Your task to perform on an android device: What's the weather going to be this weekend? Image 0: 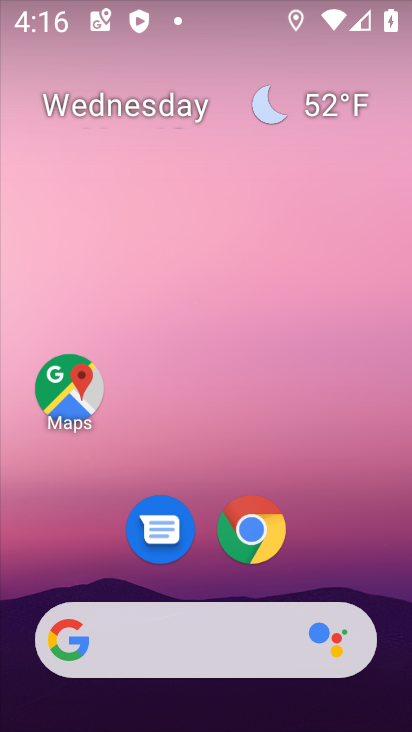
Step 0: drag from (341, 546) to (251, 52)
Your task to perform on an android device: What's the weather going to be this weekend? Image 1: 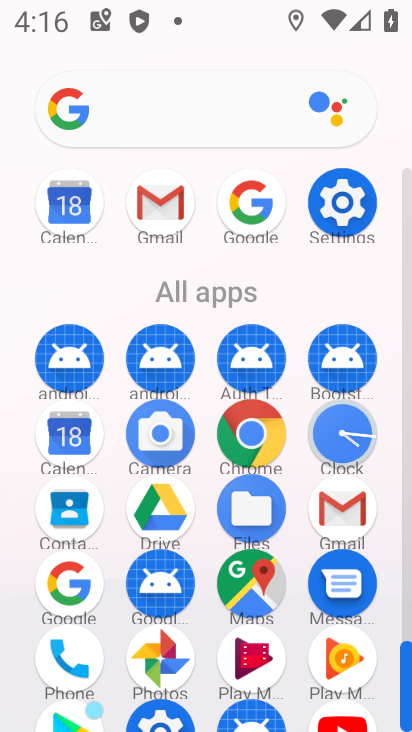
Step 1: click (247, 203)
Your task to perform on an android device: What's the weather going to be this weekend? Image 2: 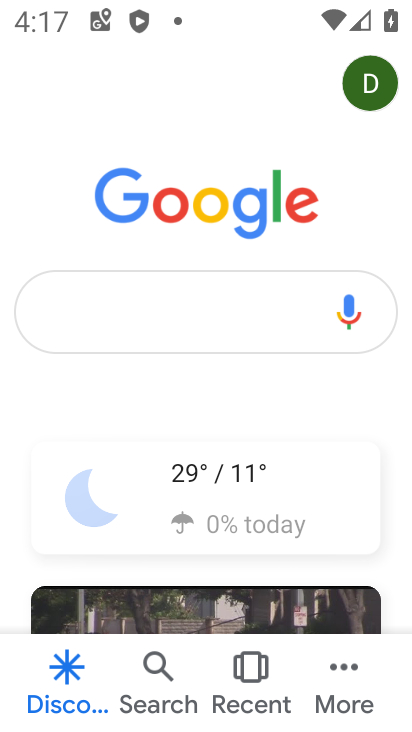
Step 2: type "What's the weather going to be this weekend?"
Your task to perform on an android device: What's the weather going to be this weekend? Image 3: 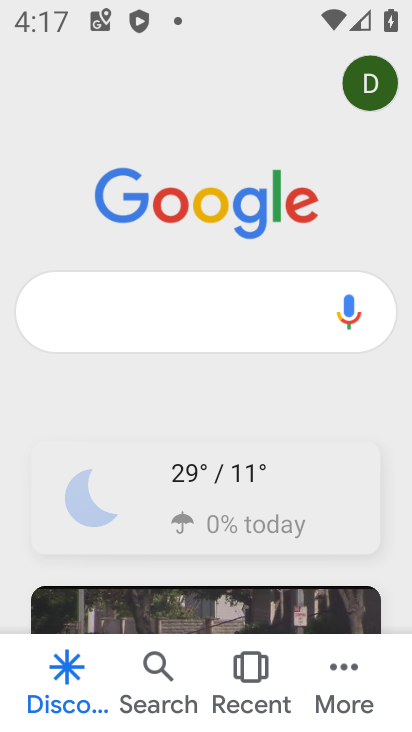
Step 3: type ""
Your task to perform on an android device: What's the weather going to be this weekend? Image 4: 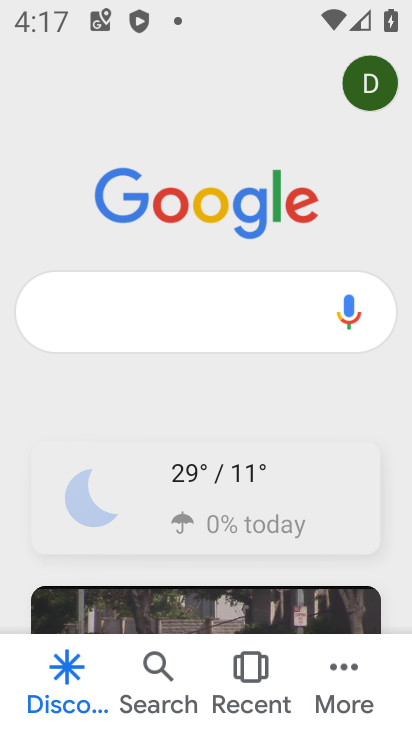
Step 4: click (209, 326)
Your task to perform on an android device: What's the weather going to be this weekend? Image 5: 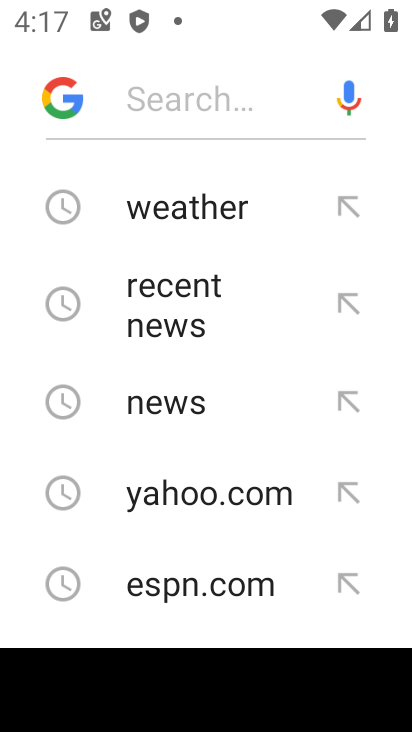
Step 5: type "What's the weather going to be this weekend?"
Your task to perform on an android device: What's the weather going to be this weekend? Image 6: 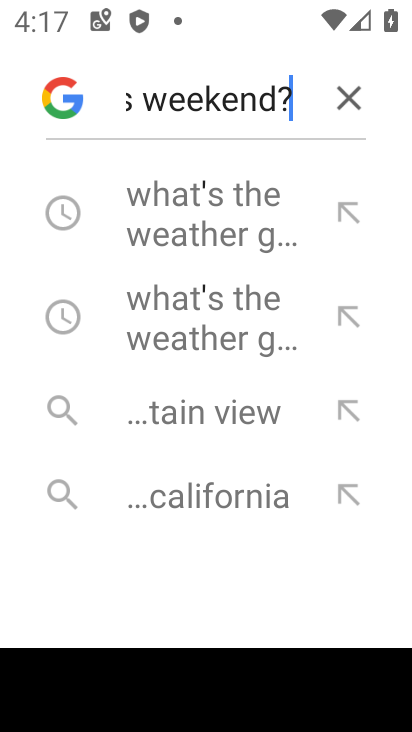
Step 6: type ""
Your task to perform on an android device: What's the weather going to be this weekend? Image 7: 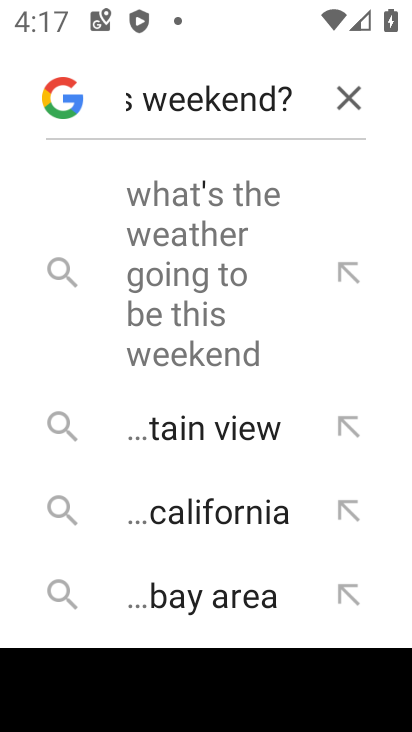
Step 7: click (201, 242)
Your task to perform on an android device: What's the weather going to be this weekend? Image 8: 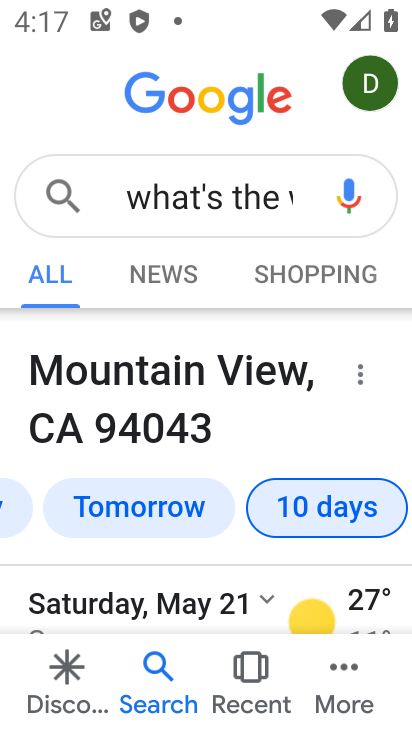
Step 8: task complete